Your task to perform on an android device: Open maps Image 0: 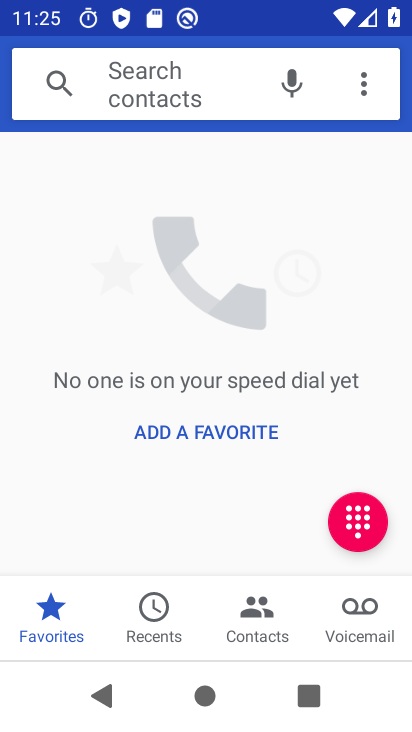
Step 0: press home button
Your task to perform on an android device: Open maps Image 1: 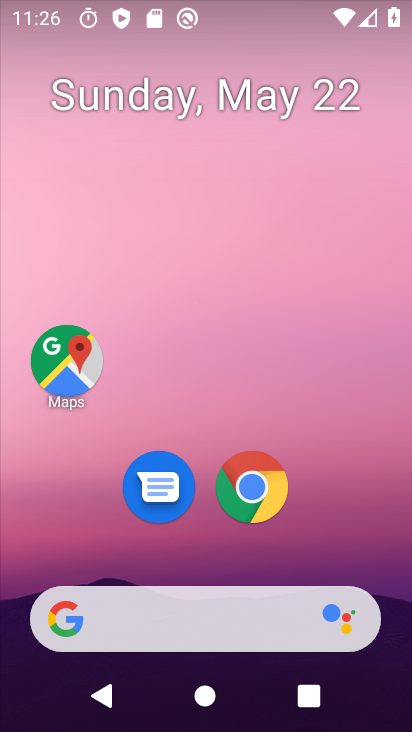
Step 1: drag from (333, 521) to (338, 193)
Your task to perform on an android device: Open maps Image 2: 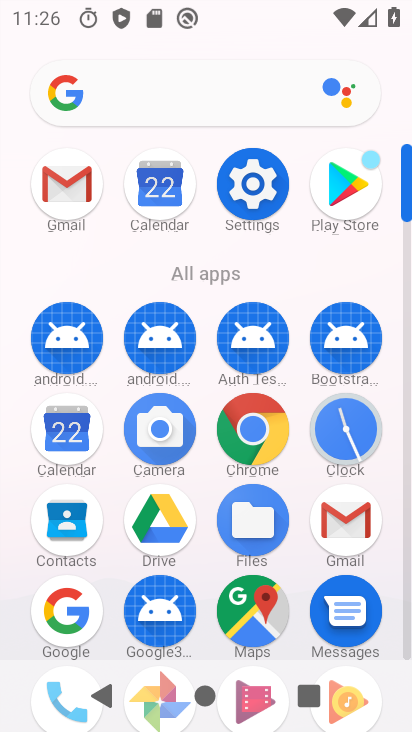
Step 2: click (244, 618)
Your task to perform on an android device: Open maps Image 3: 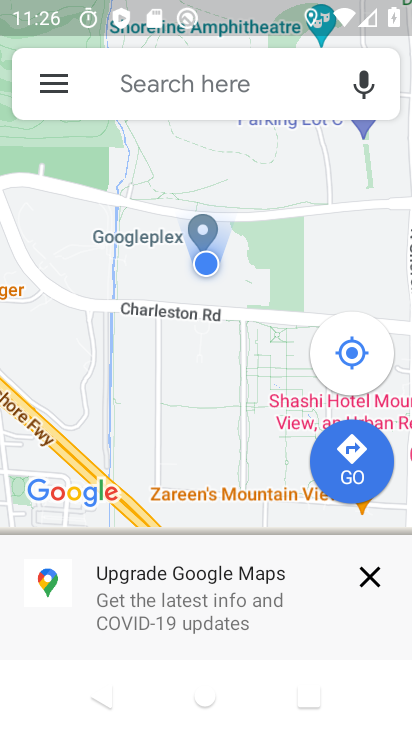
Step 3: click (376, 567)
Your task to perform on an android device: Open maps Image 4: 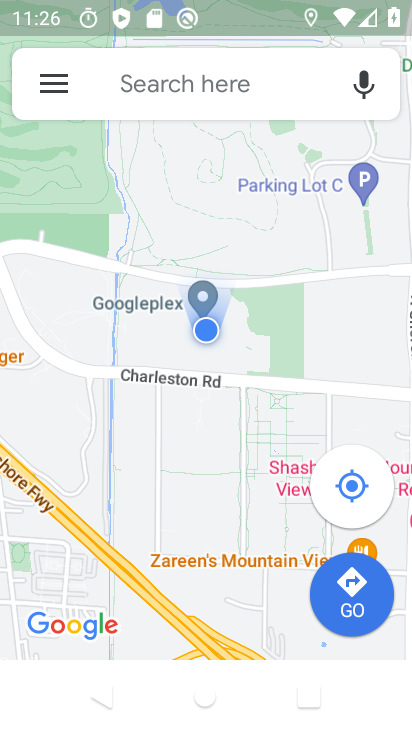
Step 4: task complete